Your task to perform on an android device: move a message to another label in the gmail app Image 0: 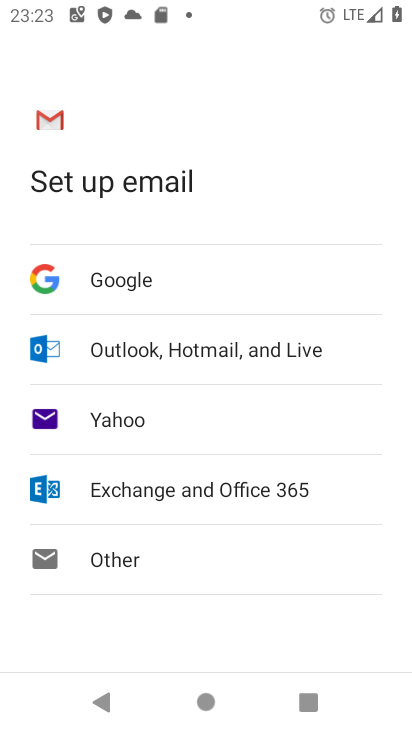
Step 0: press home button
Your task to perform on an android device: move a message to another label in the gmail app Image 1: 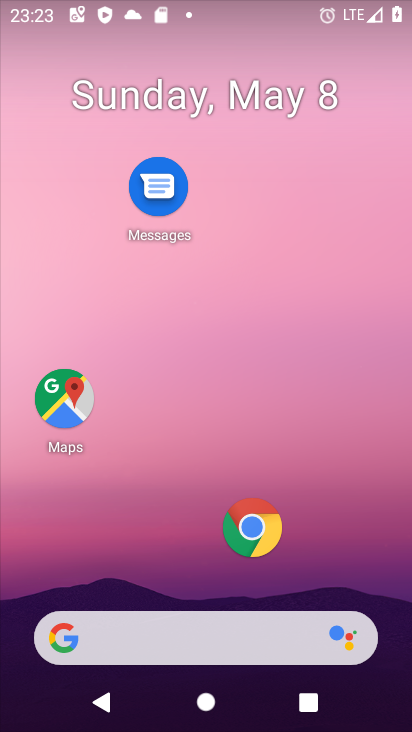
Step 1: drag from (174, 537) to (186, 58)
Your task to perform on an android device: move a message to another label in the gmail app Image 2: 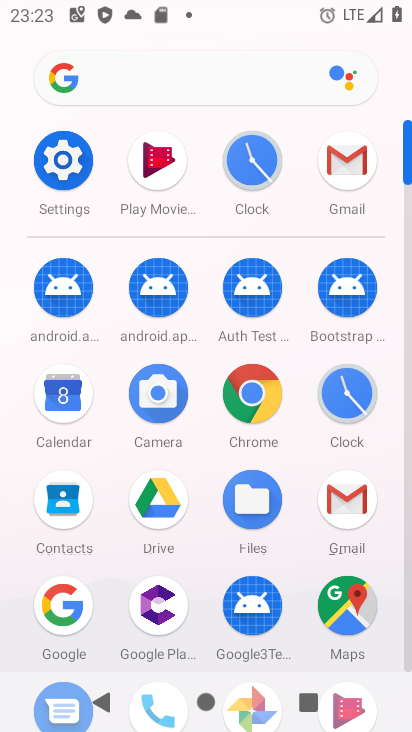
Step 2: click (346, 161)
Your task to perform on an android device: move a message to another label in the gmail app Image 3: 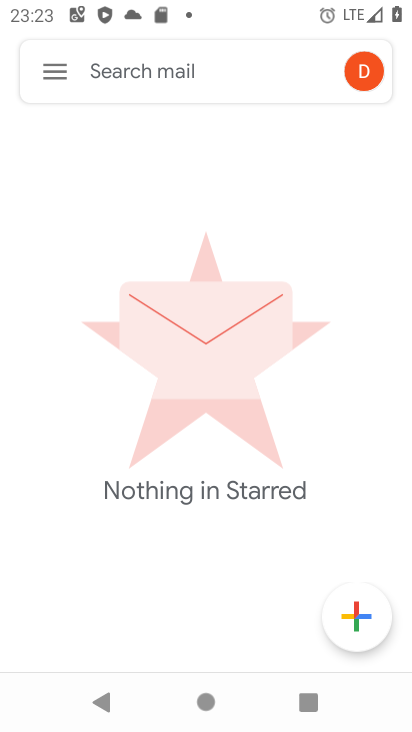
Step 3: click (48, 74)
Your task to perform on an android device: move a message to another label in the gmail app Image 4: 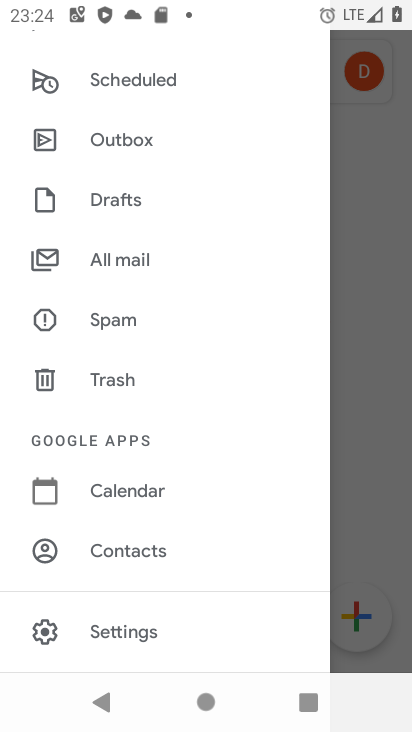
Step 4: task complete